Your task to perform on an android device: Open internet settings Image 0: 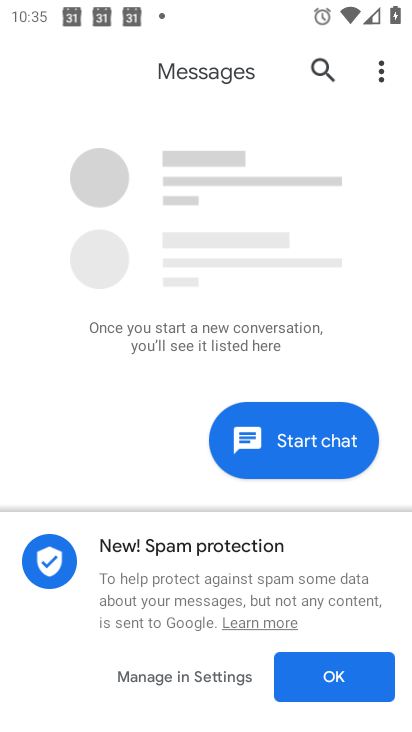
Step 0: press home button
Your task to perform on an android device: Open internet settings Image 1: 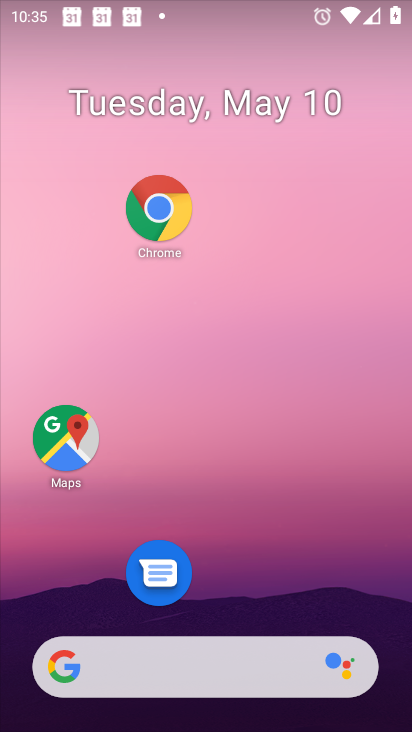
Step 1: drag from (269, 705) to (253, 207)
Your task to perform on an android device: Open internet settings Image 2: 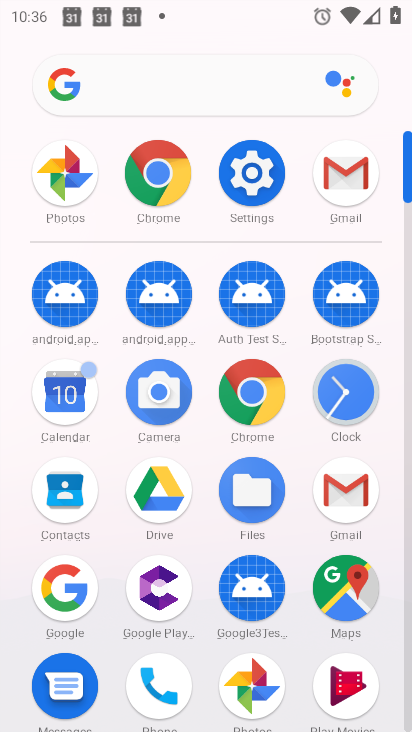
Step 2: click (250, 180)
Your task to perform on an android device: Open internet settings Image 3: 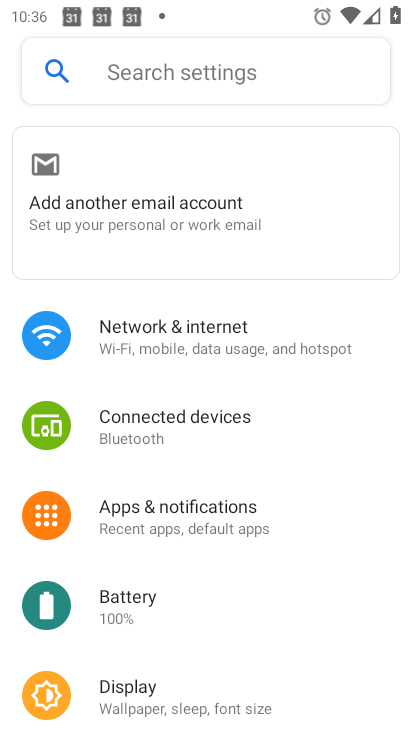
Step 3: click (166, 329)
Your task to perform on an android device: Open internet settings Image 4: 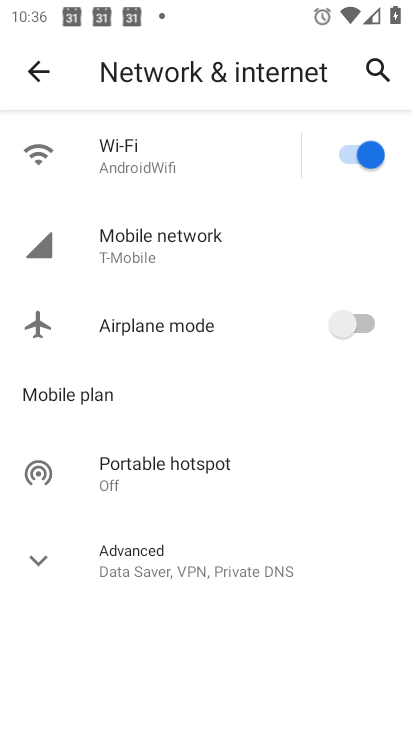
Step 4: task complete